Your task to perform on an android device: Go to calendar. Show me events next week Image 0: 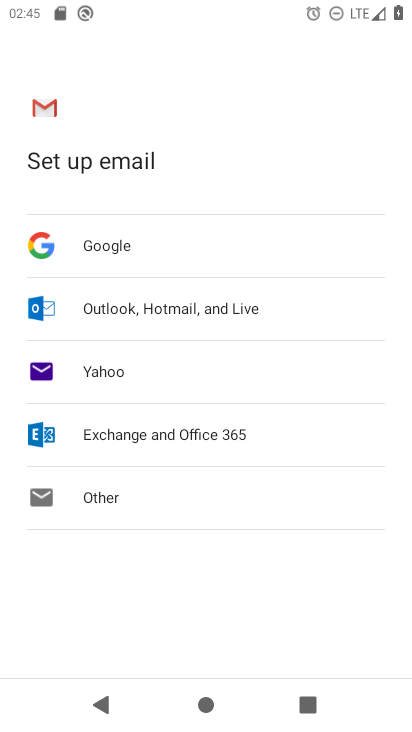
Step 0: press home button
Your task to perform on an android device: Go to calendar. Show me events next week Image 1: 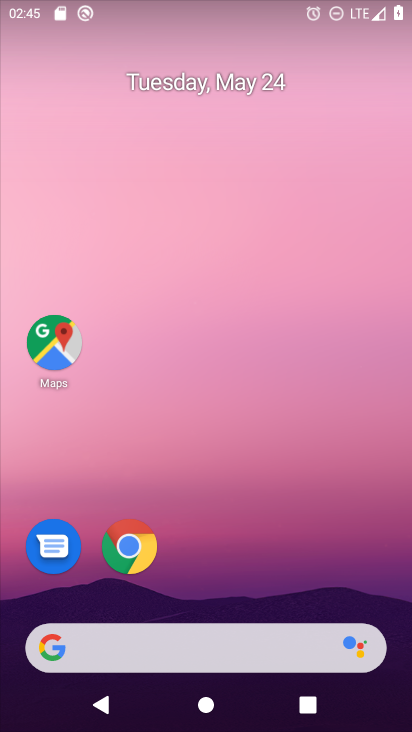
Step 1: drag from (221, 662) to (233, 31)
Your task to perform on an android device: Go to calendar. Show me events next week Image 2: 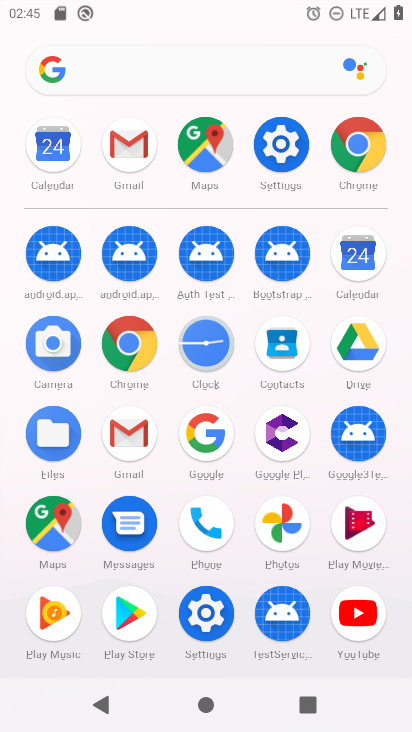
Step 2: click (360, 256)
Your task to perform on an android device: Go to calendar. Show me events next week Image 3: 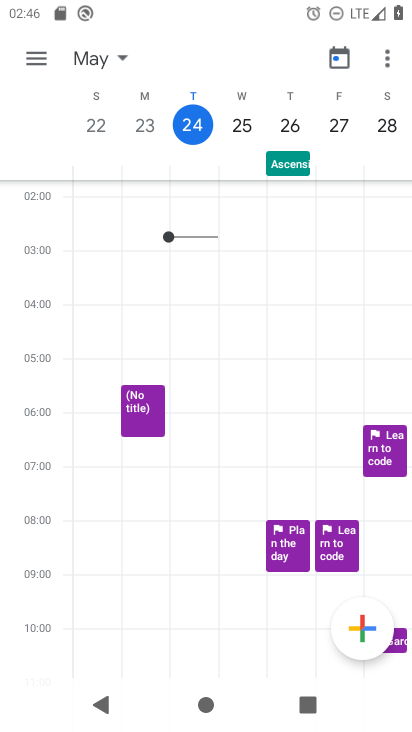
Step 3: click (122, 57)
Your task to perform on an android device: Go to calendar. Show me events next week Image 4: 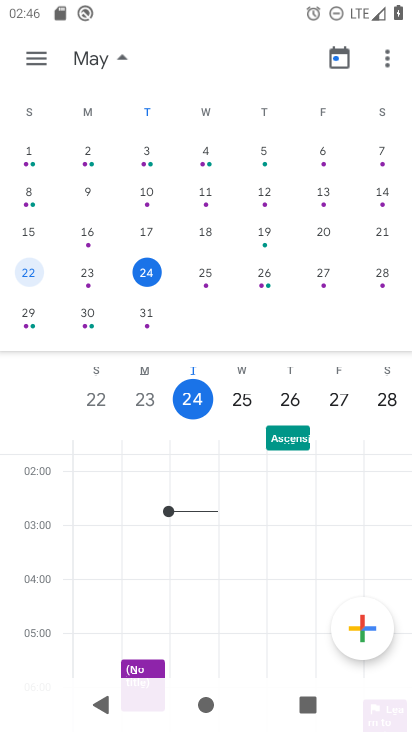
Step 4: click (203, 272)
Your task to perform on an android device: Go to calendar. Show me events next week Image 5: 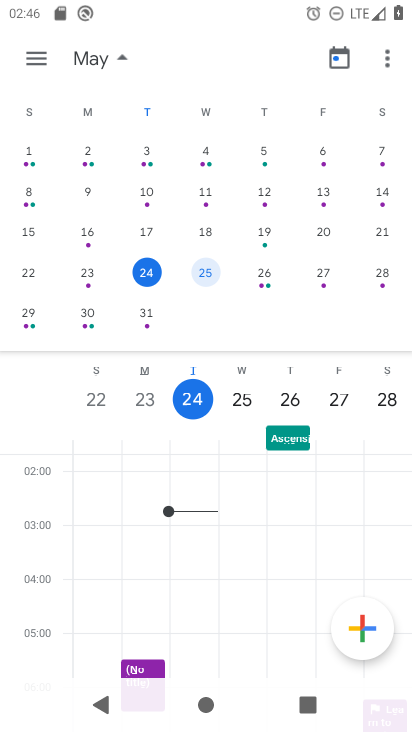
Step 5: click (85, 316)
Your task to perform on an android device: Go to calendar. Show me events next week Image 6: 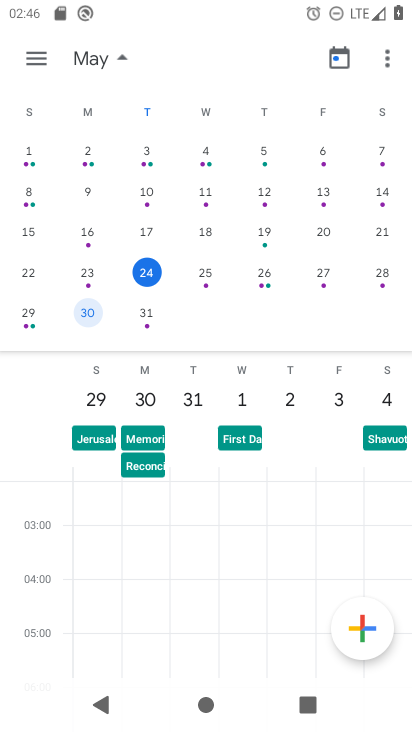
Step 6: click (31, 61)
Your task to perform on an android device: Go to calendar. Show me events next week Image 7: 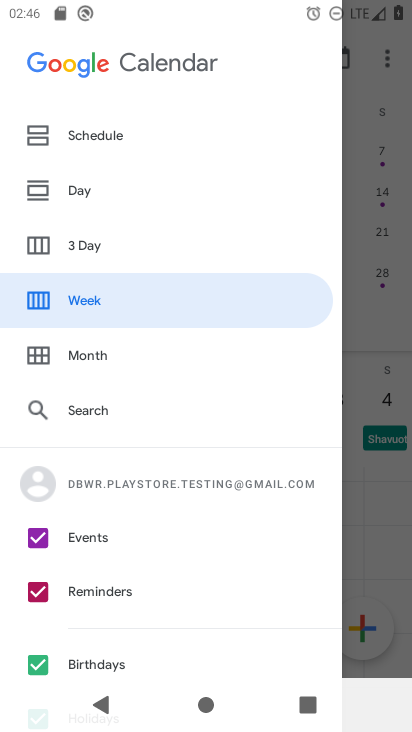
Step 7: click (90, 299)
Your task to perform on an android device: Go to calendar. Show me events next week Image 8: 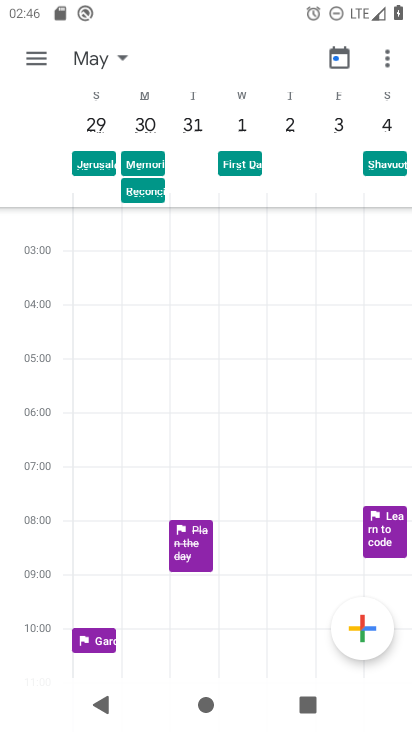
Step 8: task complete